Your task to perform on an android device: How much does a 2 bedroom apartment rent for in Chicago? Image 0: 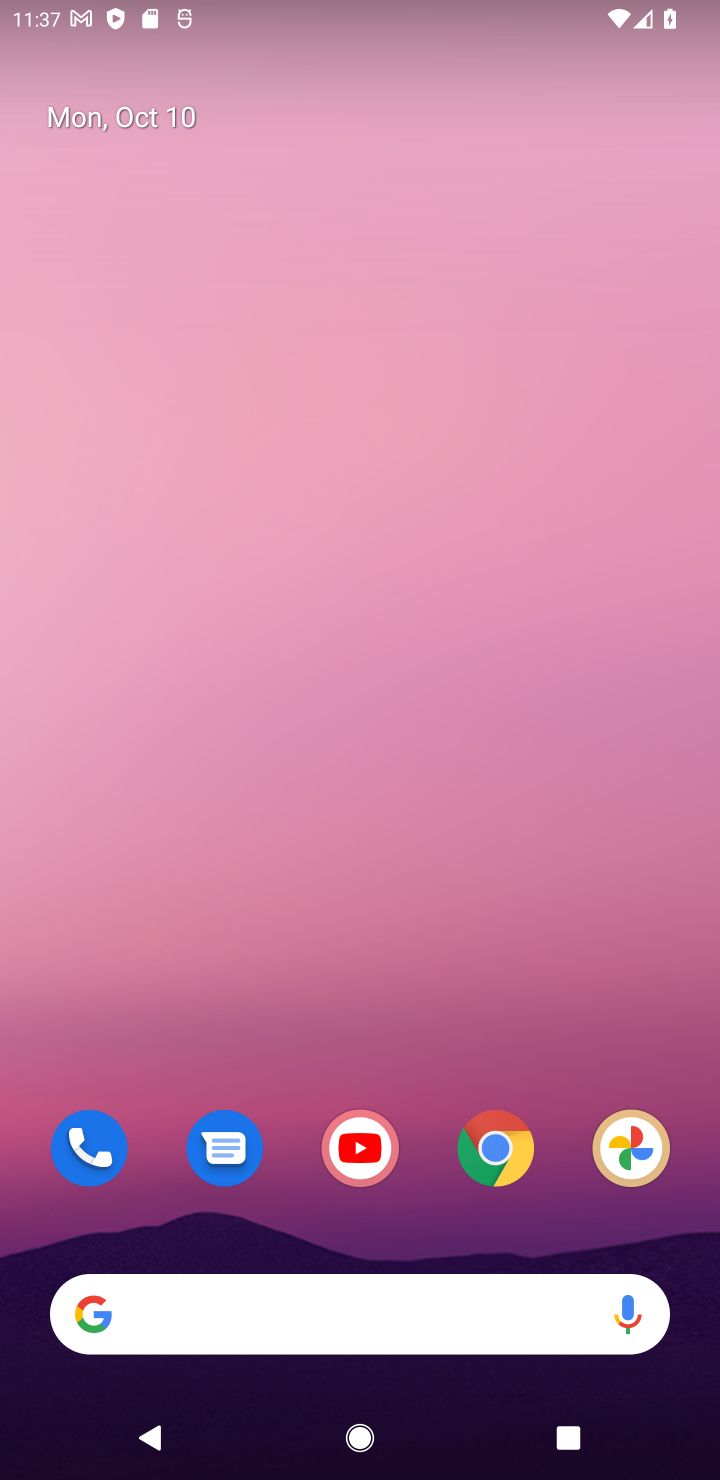
Step 0: drag from (370, 1302) to (362, 652)
Your task to perform on an android device: How much does a 2 bedroom apartment rent for in Chicago? Image 1: 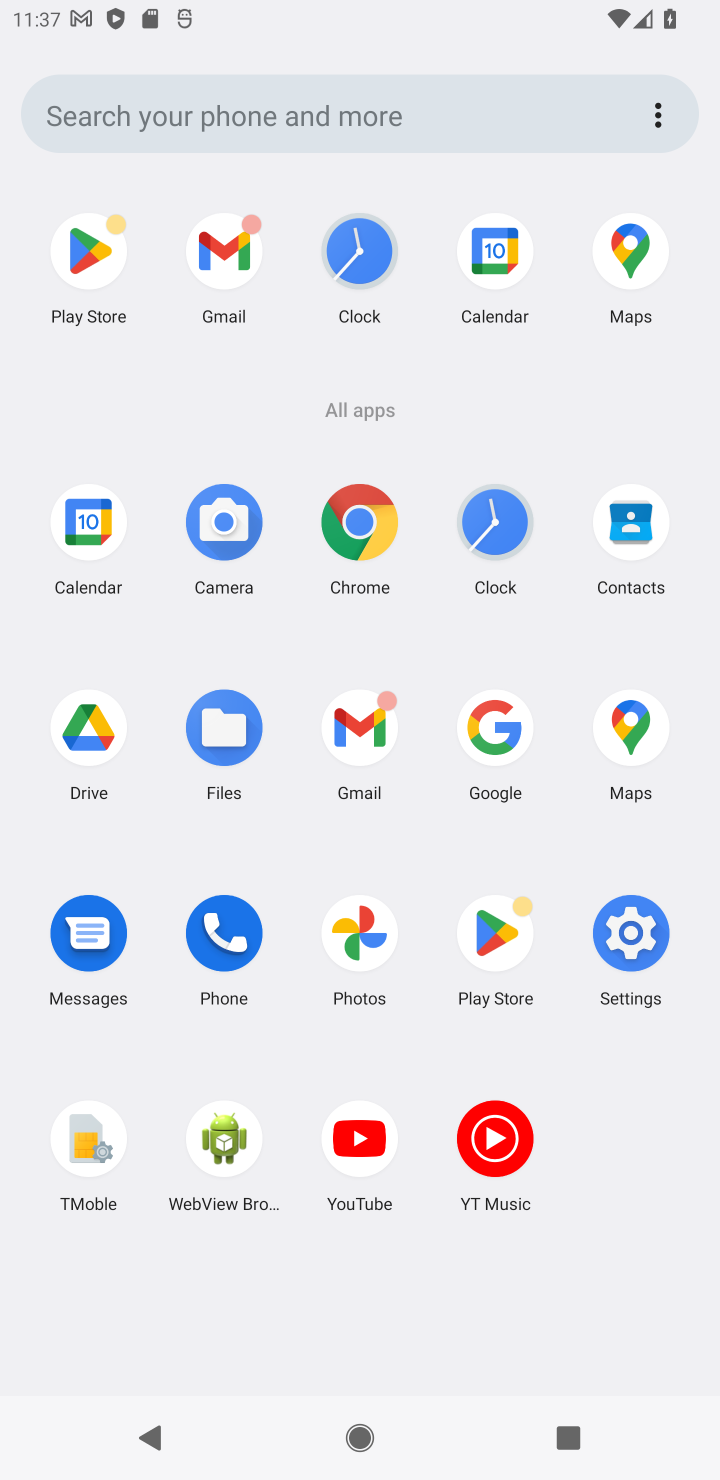
Step 1: click (485, 739)
Your task to perform on an android device: How much does a 2 bedroom apartment rent for in Chicago? Image 2: 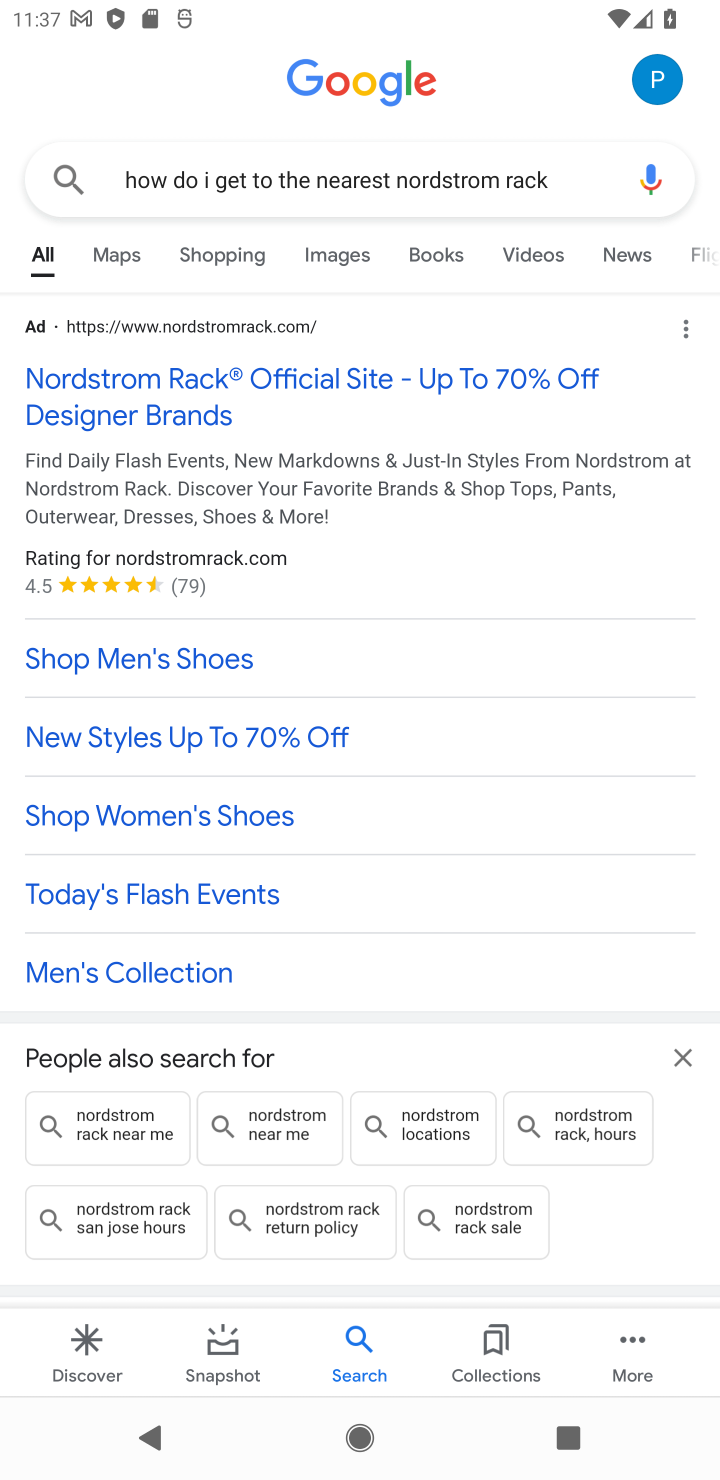
Step 2: click (405, 189)
Your task to perform on an android device: How much does a 2 bedroom apartment rent for in Chicago? Image 3: 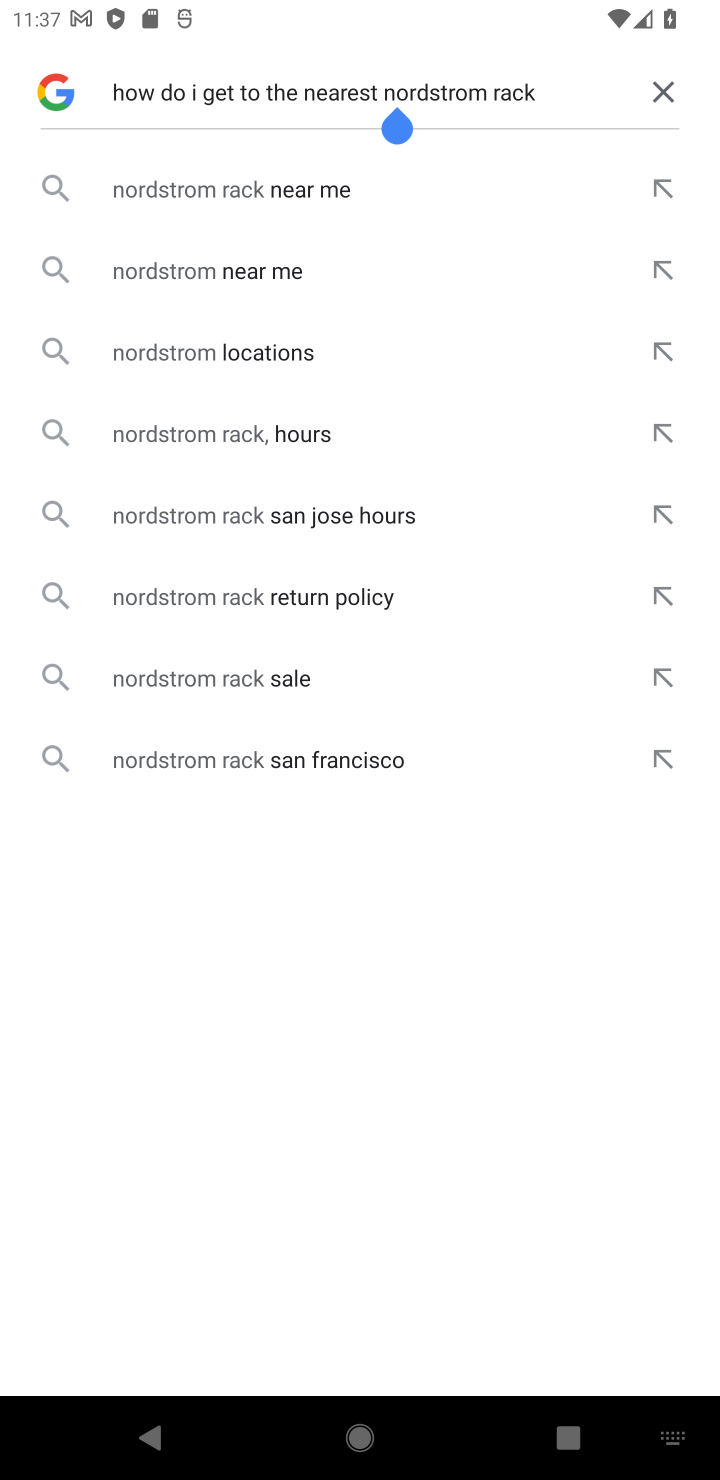
Step 3: click (678, 91)
Your task to perform on an android device: How much does a 2 bedroom apartment rent for in Chicago? Image 4: 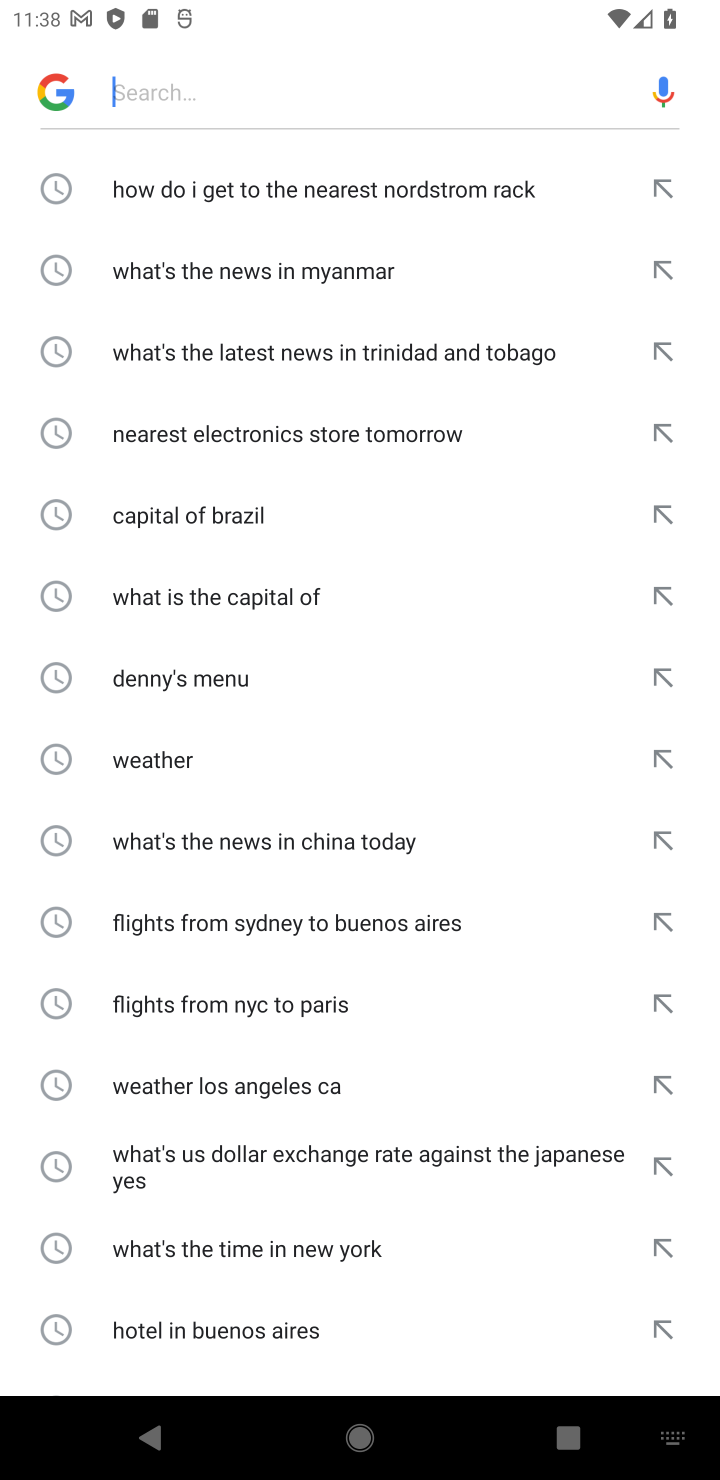
Step 4: type "How much does a 2 bedroom apartment rent for in Chicago?"
Your task to perform on an android device: How much does a 2 bedroom apartment rent for in Chicago? Image 5: 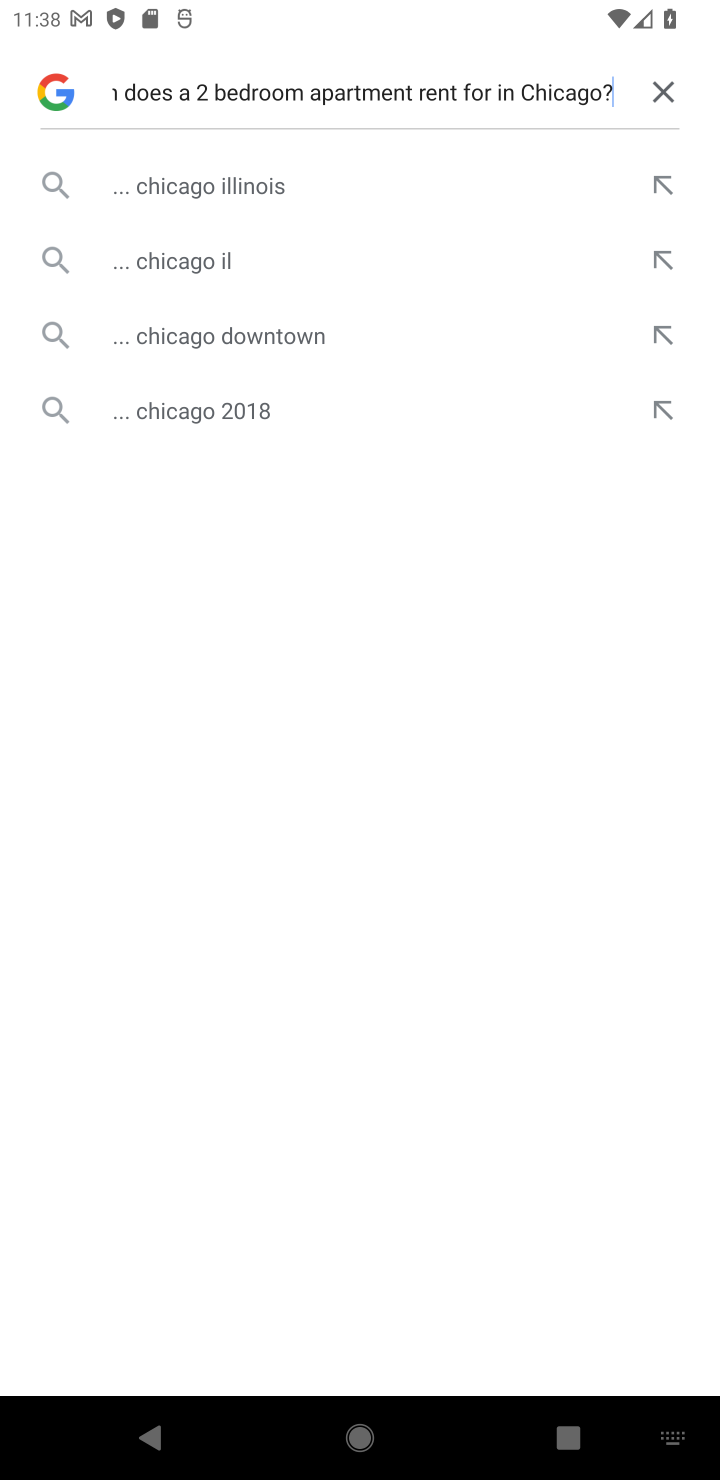
Step 5: click (265, 190)
Your task to perform on an android device: How much does a 2 bedroom apartment rent for in Chicago? Image 6: 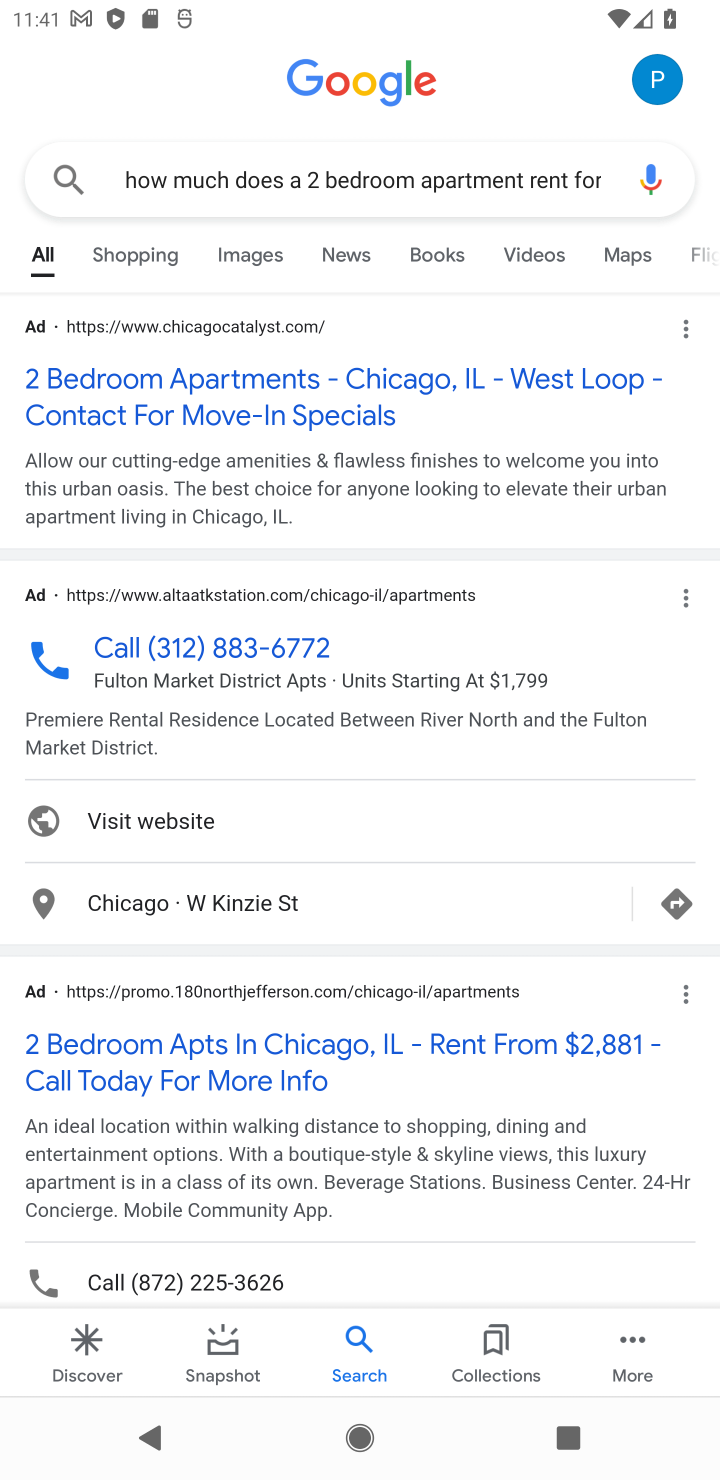
Step 6: task complete